Your task to perform on an android device: What is the news today? Image 0: 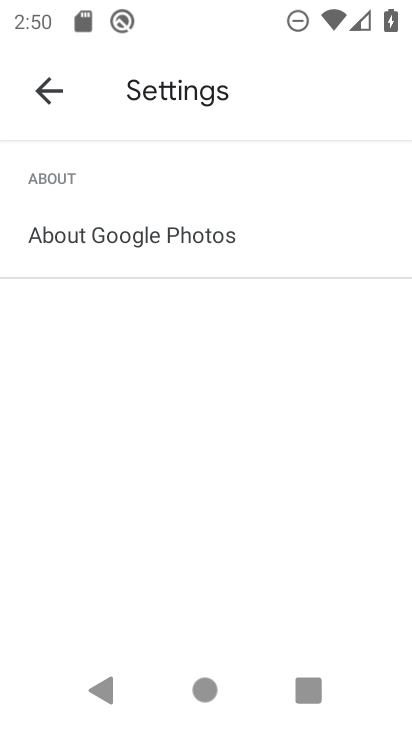
Step 0: press home button
Your task to perform on an android device: What is the news today? Image 1: 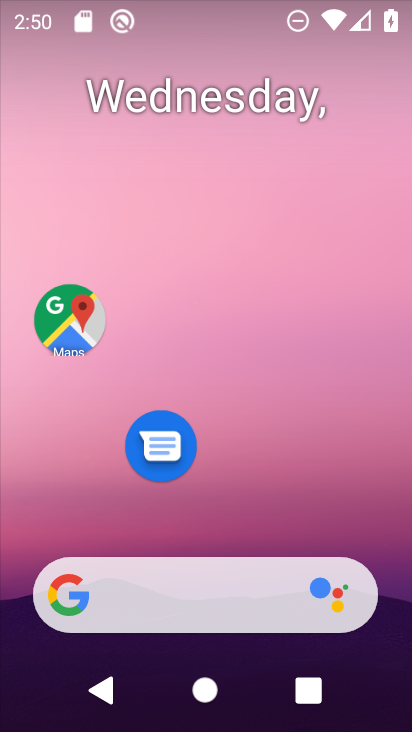
Step 1: drag from (264, 509) to (315, 82)
Your task to perform on an android device: What is the news today? Image 2: 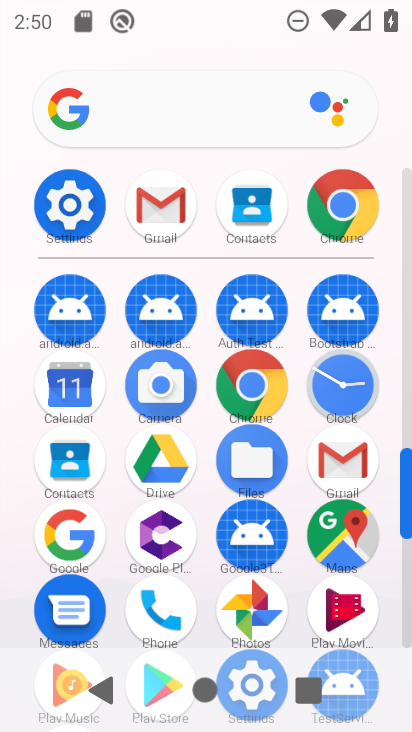
Step 2: click (335, 218)
Your task to perform on an android device: What is the news today? Image 3: 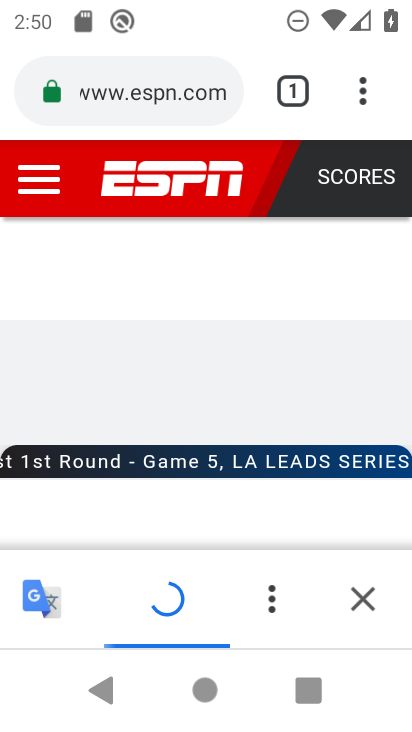
Step 3: click (368, 573)
Your task to perform on an android device: What is the news today? Image 4: 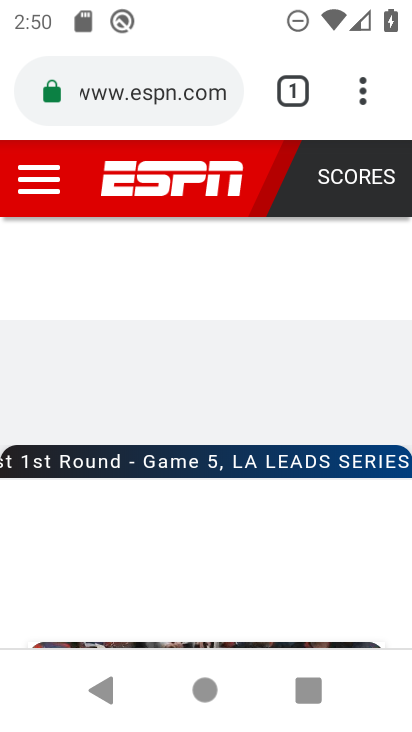
Step 4: click (303, 82)
Your task to perform on an android device: What is the news today? Image 5: 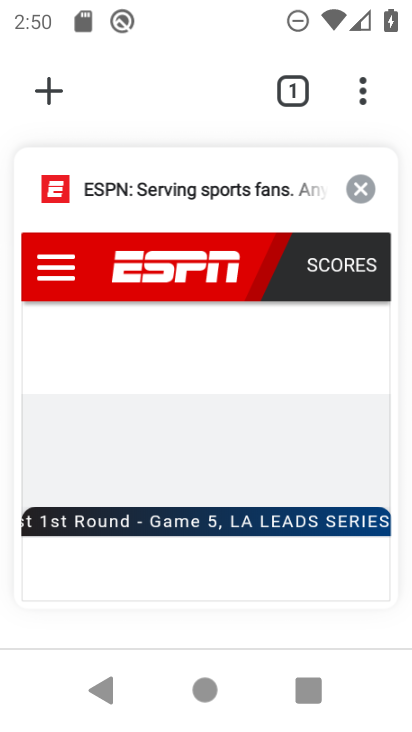
Step 5: click (49, 98)
Your task to perform on an android device: What is the news today? Image 6: 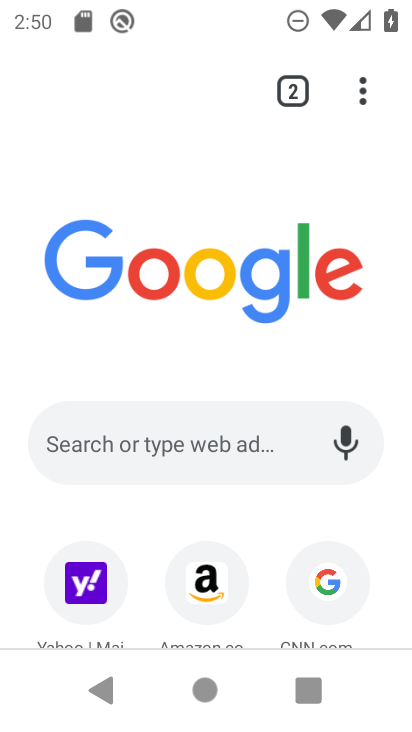
Step 6: task complete